Your task to perform on an android device: open app "Booking.com: Hotels and more" Image 0: 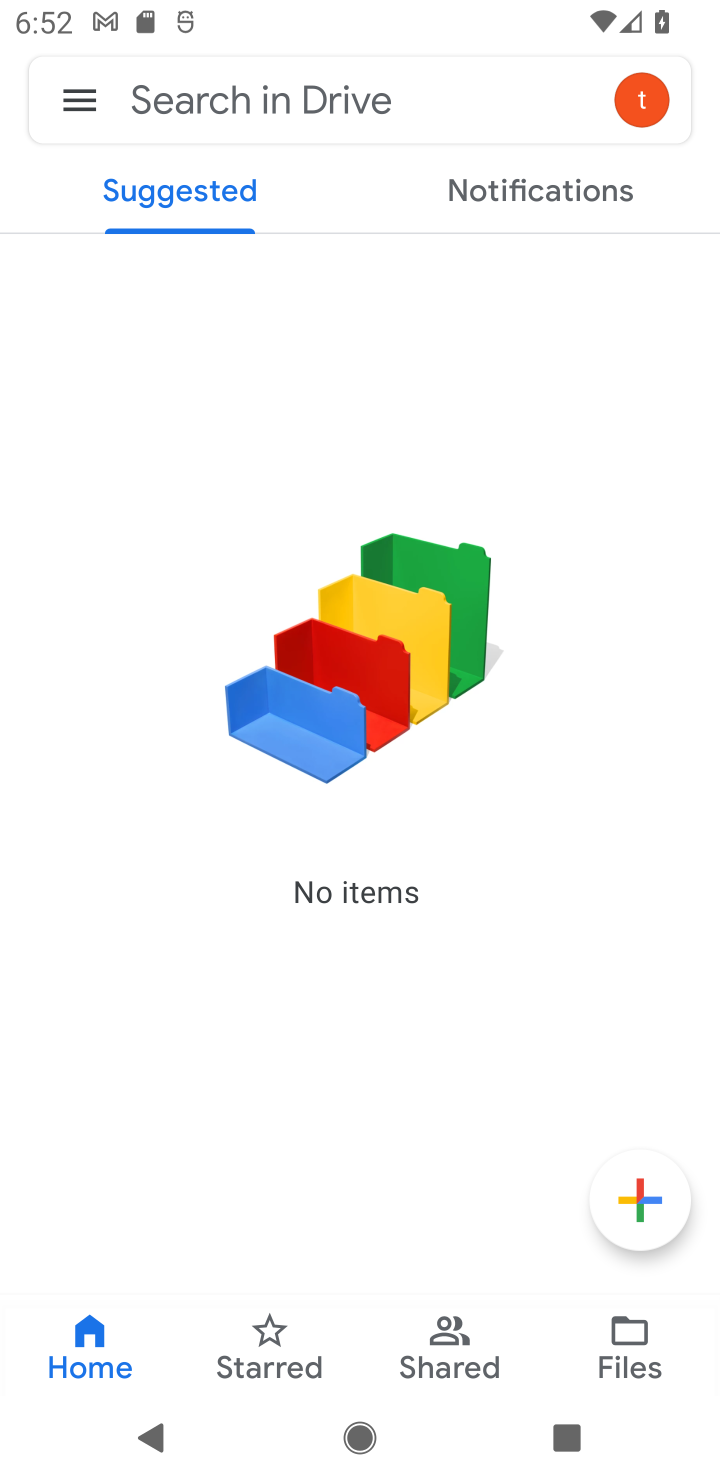
Step 0: press home button
Your task to perform on an android device: open app "Booking.com: Hotels and more" Image 1: 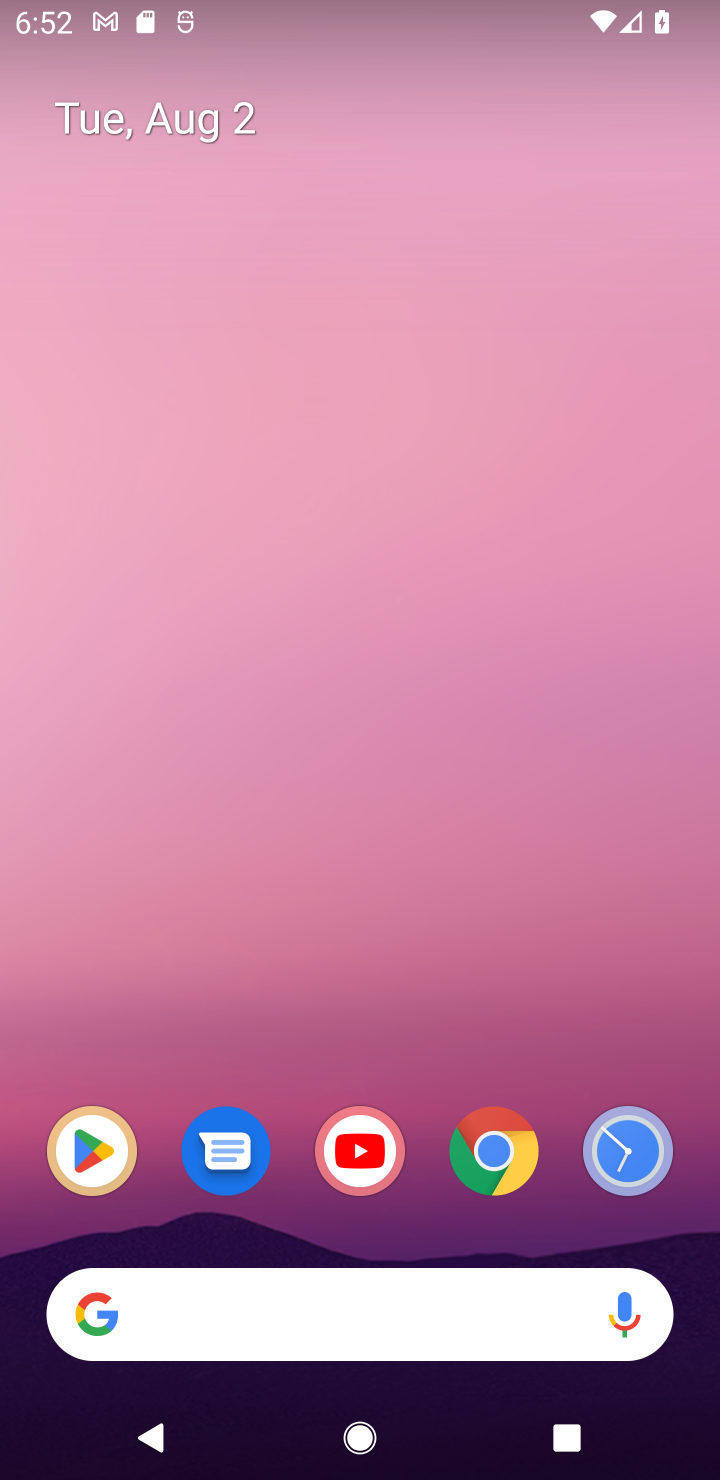
Step 1: click (111, 1103)
Your task to perform on an android device: open app "Booking.com: Hotels and more" Image 2: 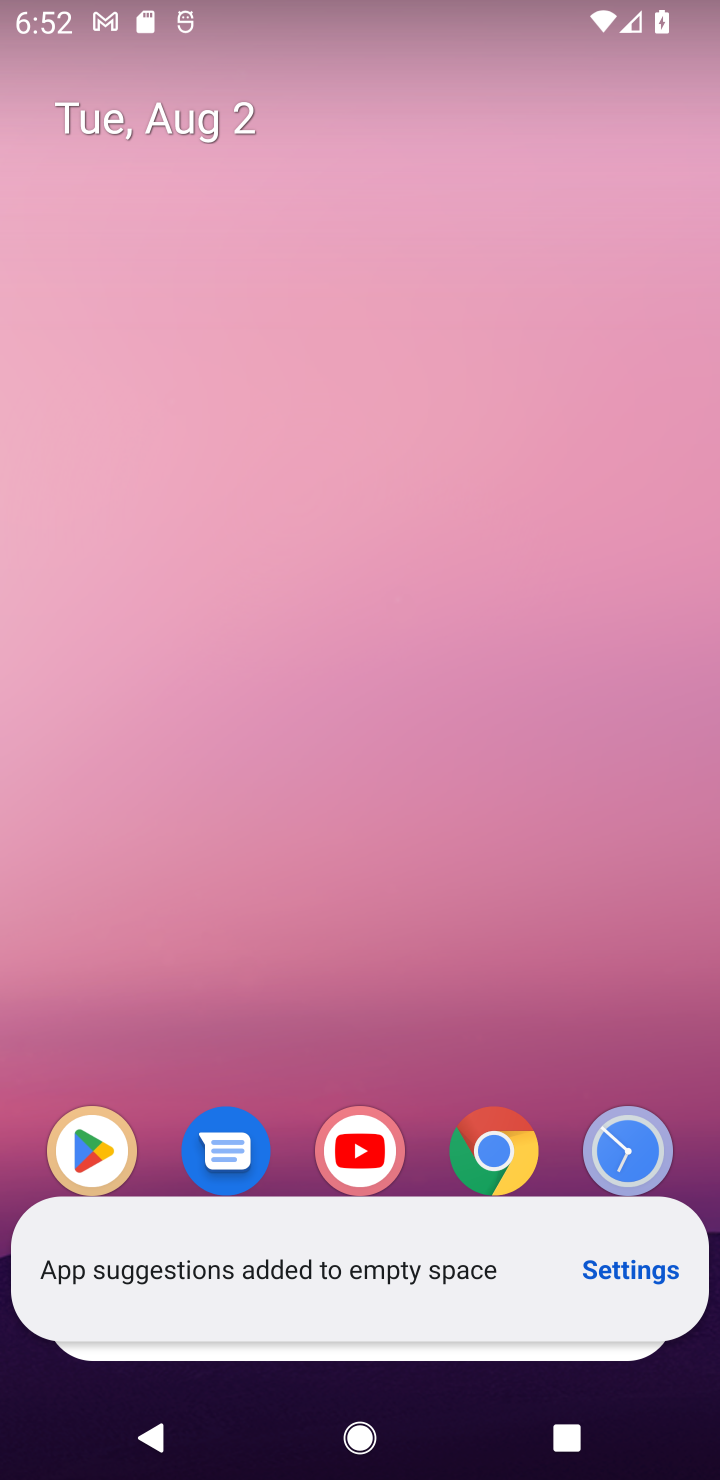
Step 2: click (82, 1115)
Your task to perform on an android device: open app "Booking.com: Hotels and more" Image 3: 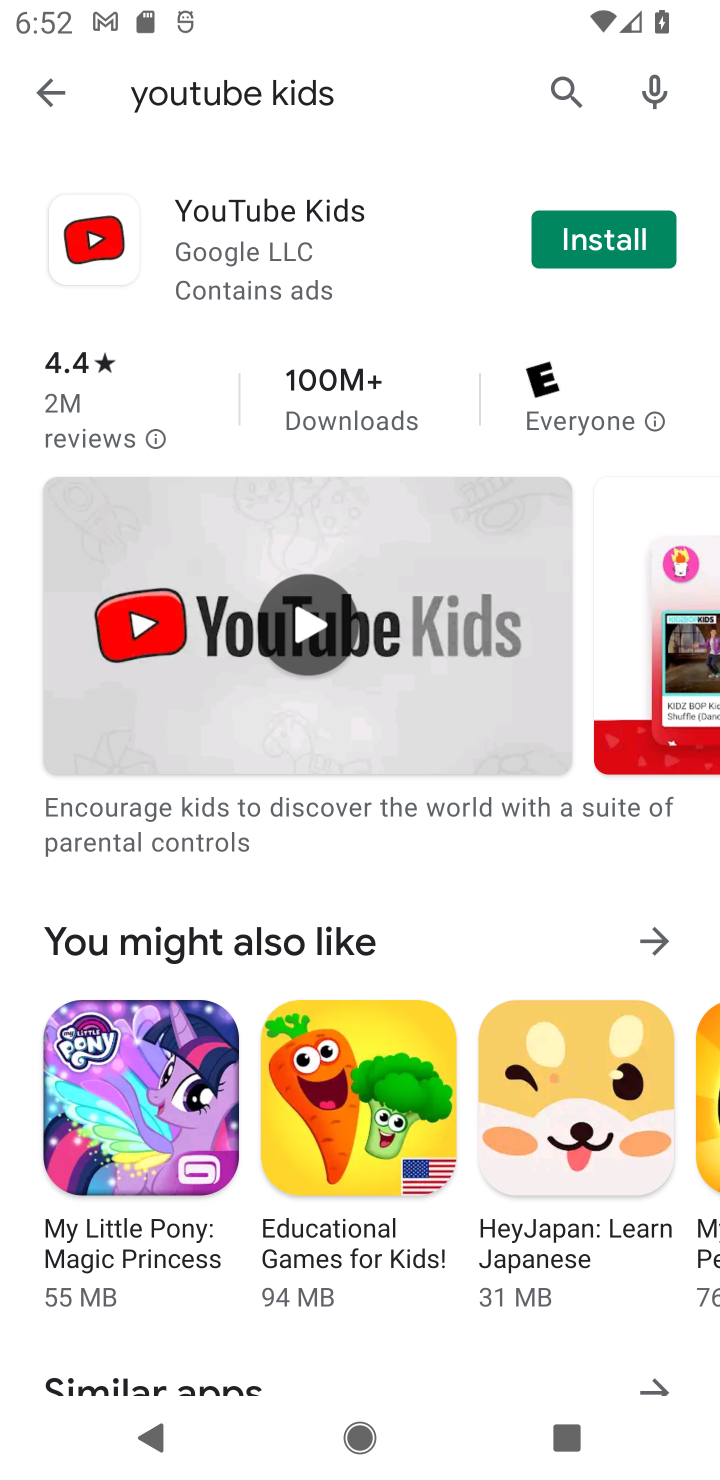
Step 3: click (545, 103)
Your task to perform on an android device: open app "Booking.com: Hotels and more" Image 4: 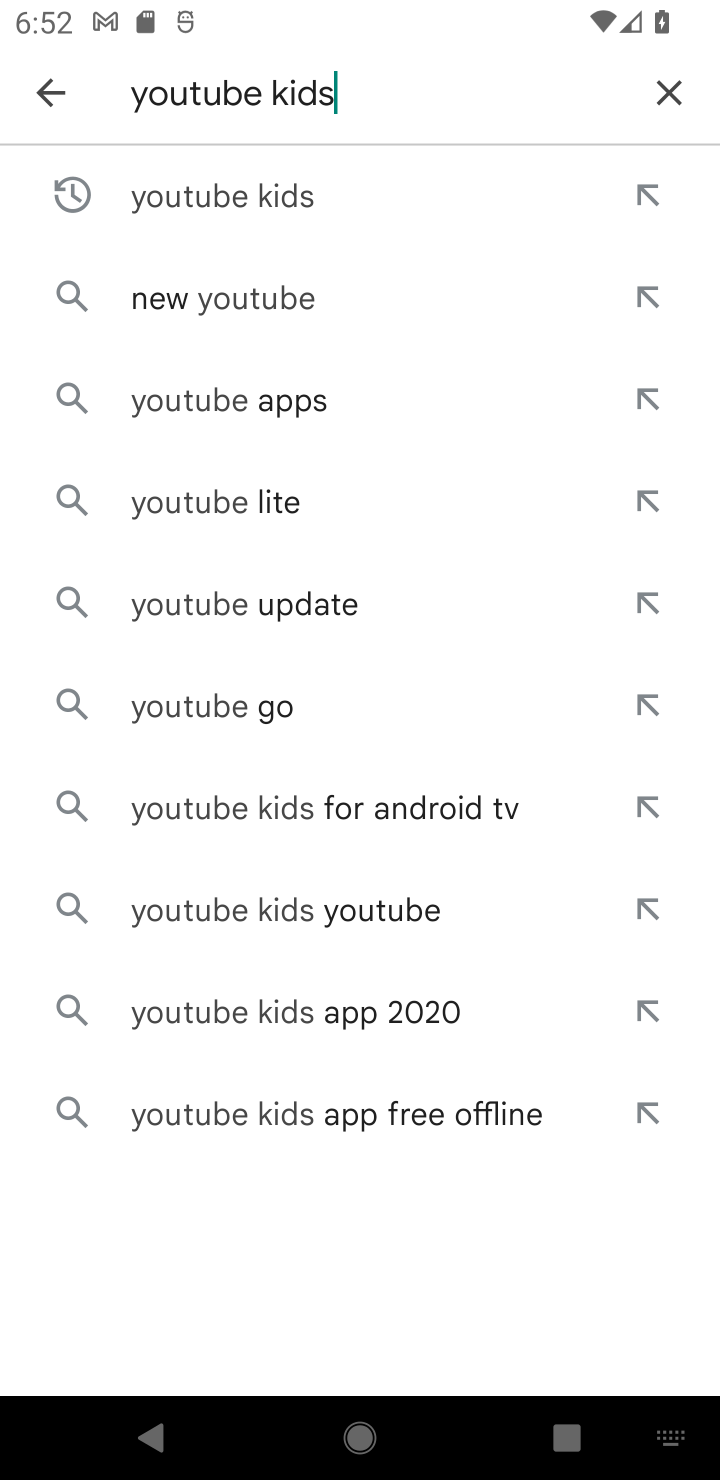
Step 4: click (653, 64)
Your task to perform on an android device: open app "Booking.com: Hotels and more" Image 5: 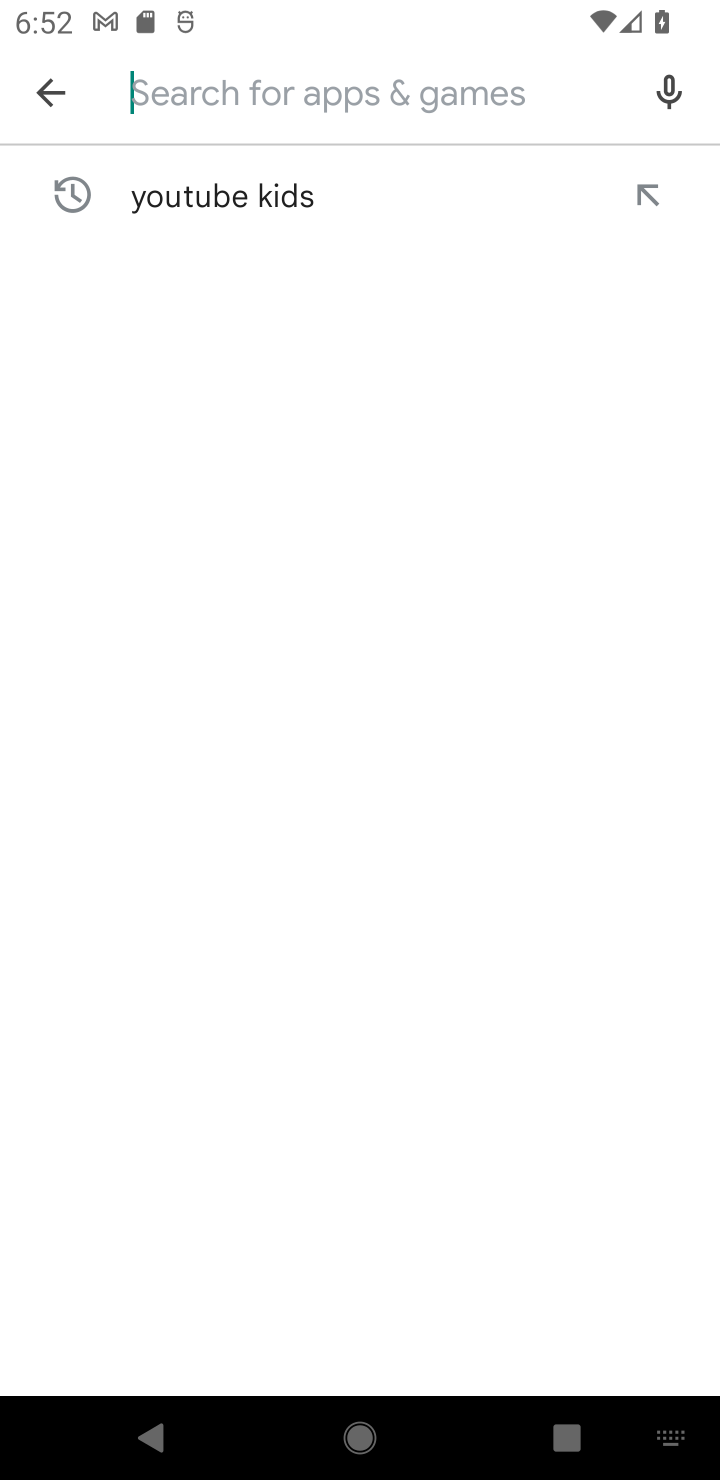
Step 5: type "Booking.com: Hotels and more"
Your task to perform on an android device: open app "Booking.com: Hotels and more" Image 6: 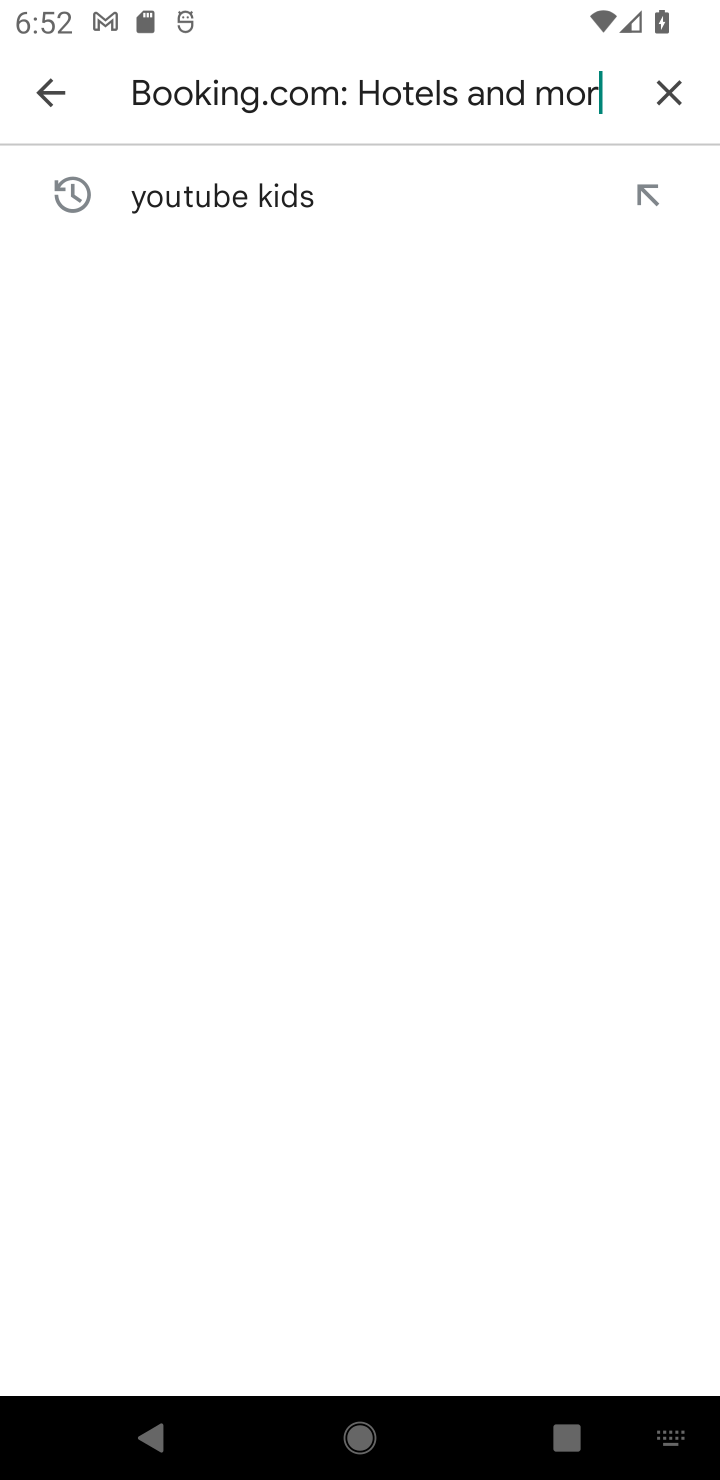
Step 6: type ""
Your task to perform on an android device: open app "Booking.com: Hotels and more" Image 7: 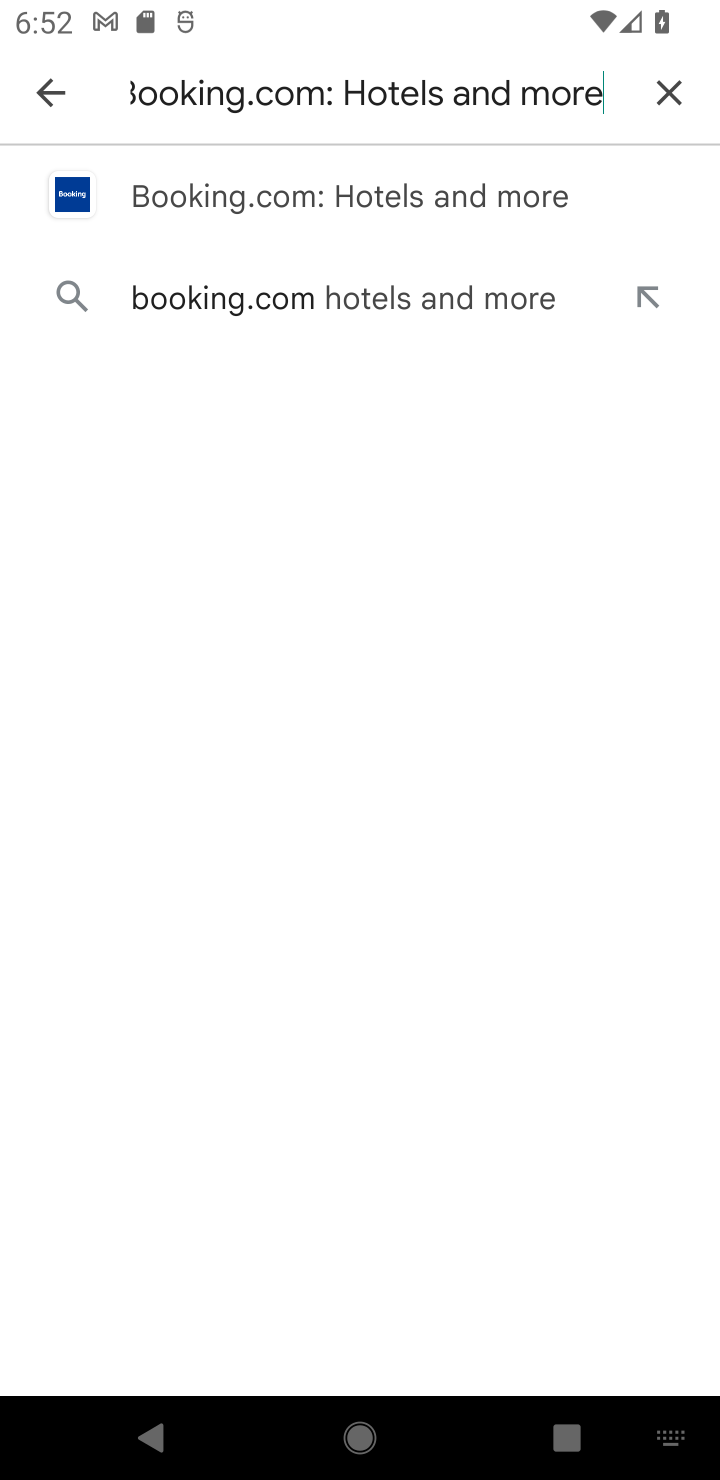
Step 7: click (274, 190)
Your task to perform on an android device: open app "Booking.com: Hotels and more" Image 8: 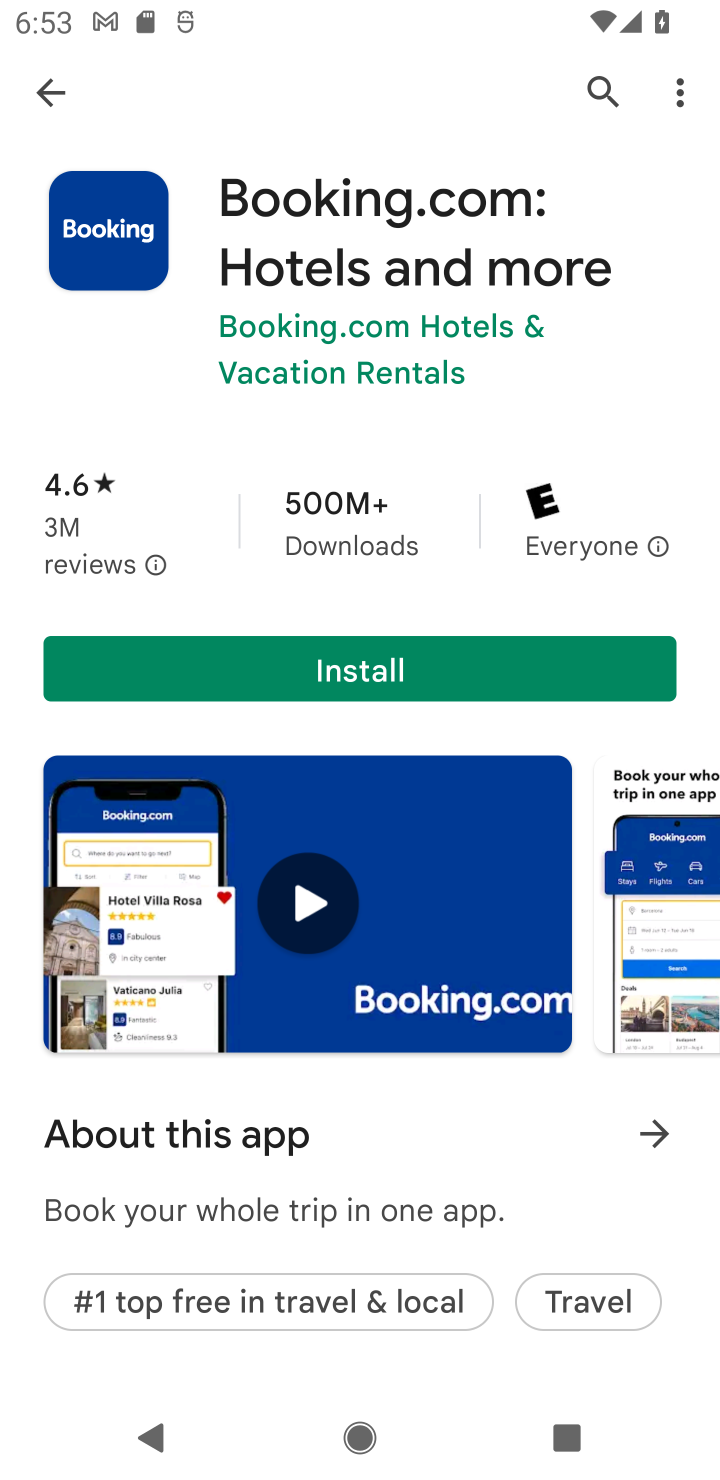
Step 8: task complete